Your task to perform on an android device: empty trash in google photos Image 0: 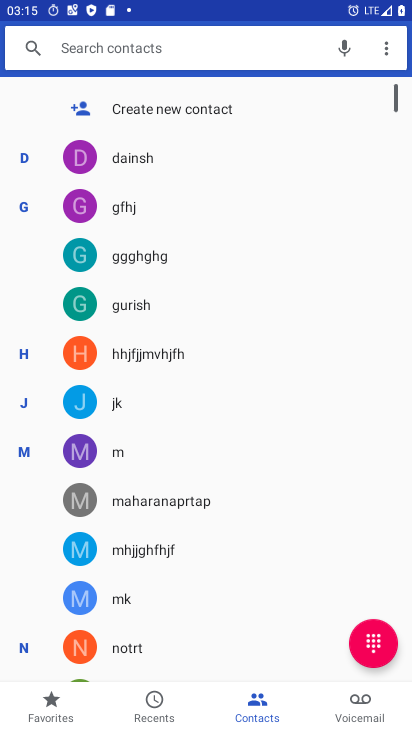
Step 0: press home button
Your task to perform on an android device: empty trash in google photos Image 1: 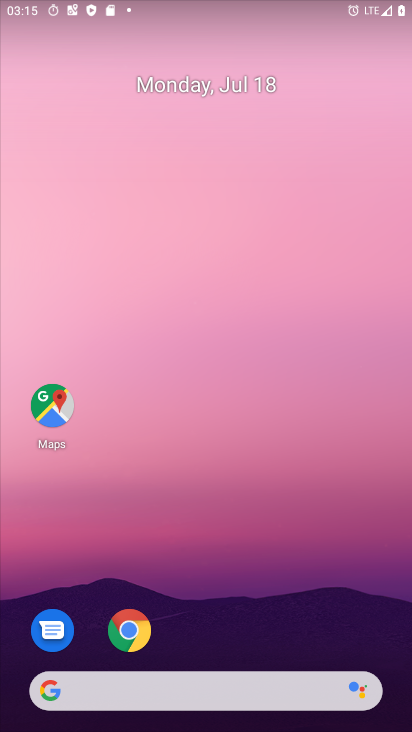
Step 1: drag from (229, 620) to (277, 43)
Your task to perform on an android device: empty trash in google photos Image 2: 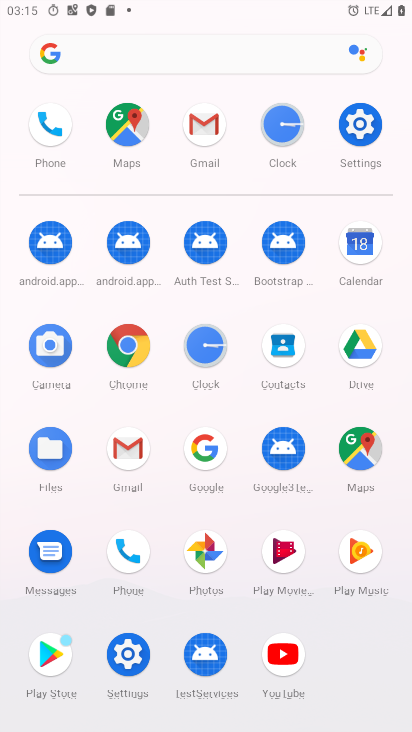
Step 2: click (203, 538)
Your task to perform on an android device: empty trash in google photos Image 3: 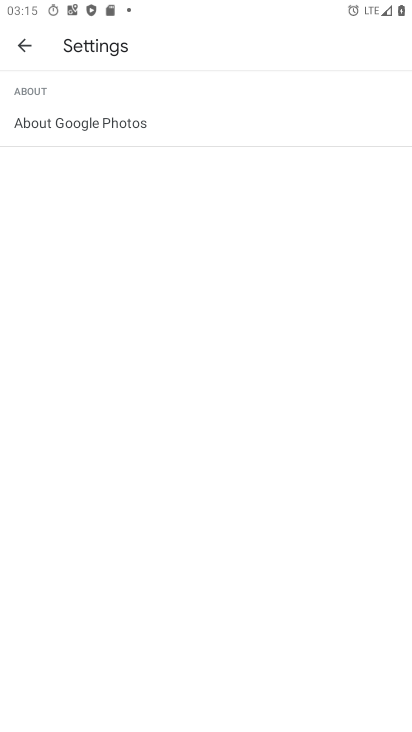
Step 3: click (32, 33)
Your task to perform on an android device: empty trash in google photos Image 4: 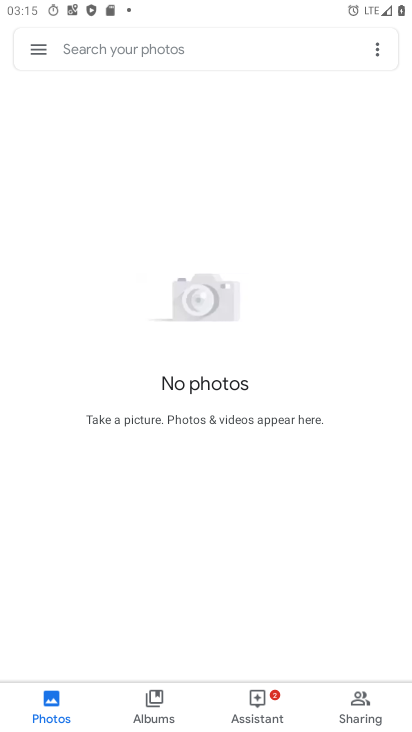
Step 4: click (36, 42)
Your task to perform on an android device: empty trash in google photos Image 5: 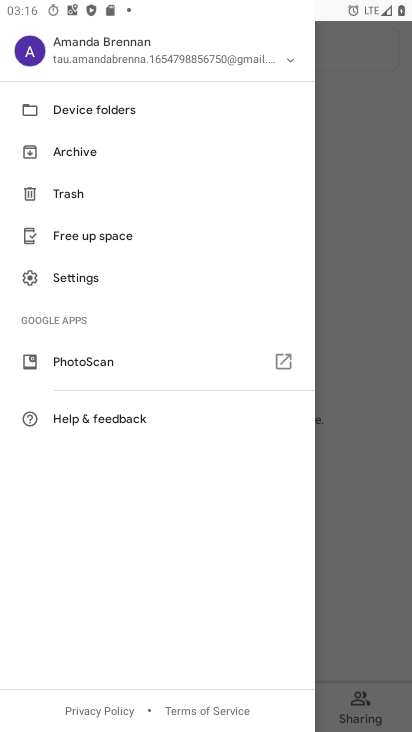
Step 5: click (160, 275)
Your task to perform on an android device: empty trash in google photos Image 6: 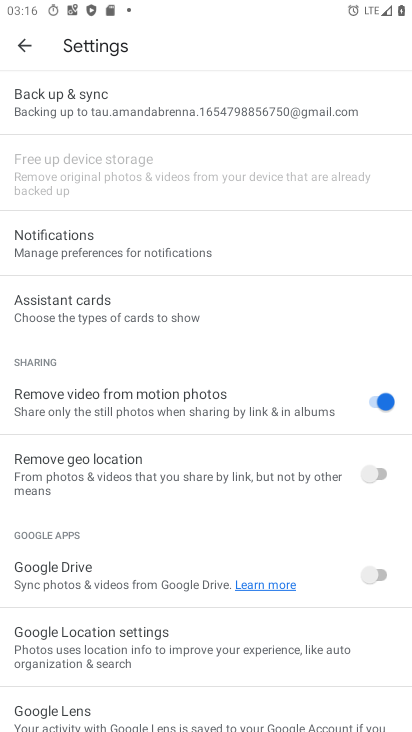
Step 6: click (25, 47)
Your task to perform on an android device: empty trash in google photos Image 7: 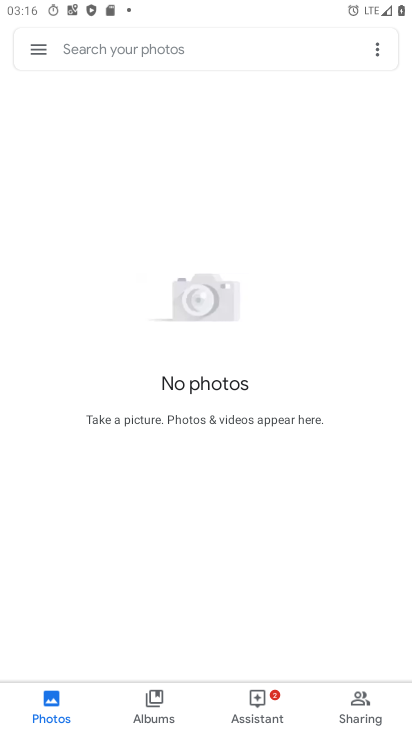
Step 7: click (25, 47)
Your task to perform on an android device: empty trash in google photos Image 8: 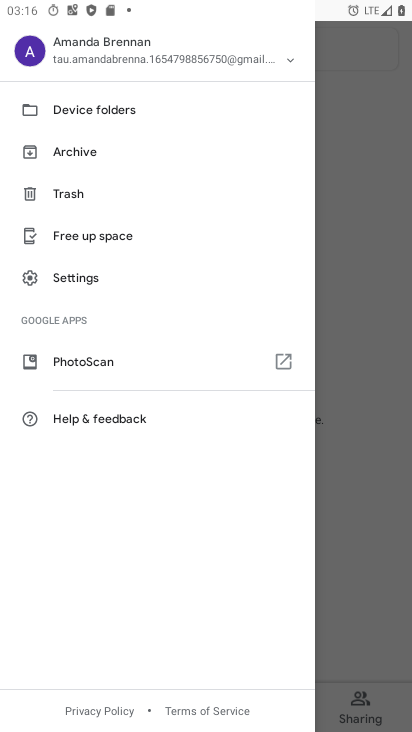
Step 8: click (72, 211)
Your task to perform on an android device: empty trash in google photos Image 9: 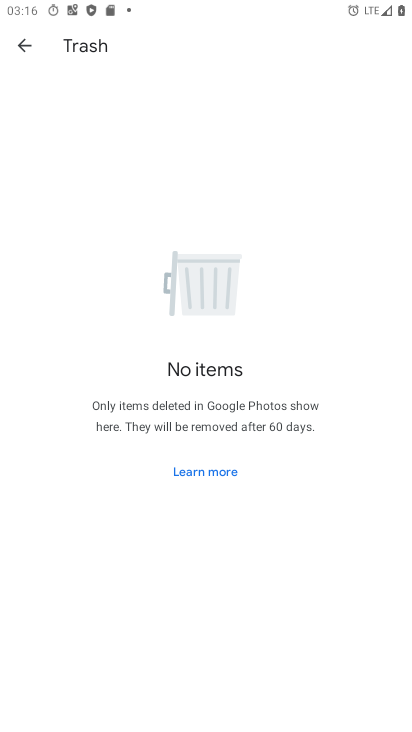
Step 9: task complete